Your task to perform on an android device: Open wifi settings Image 0: 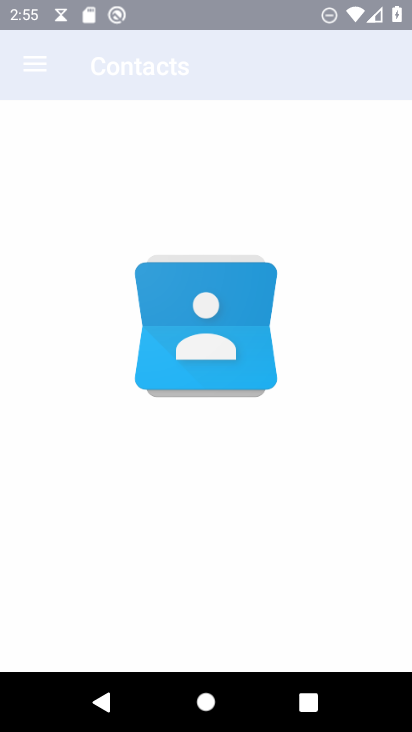
Step 0: drag from (341, 556) to (168, 23)
Your task to perform on an android device: Open wifi settings Image 1: 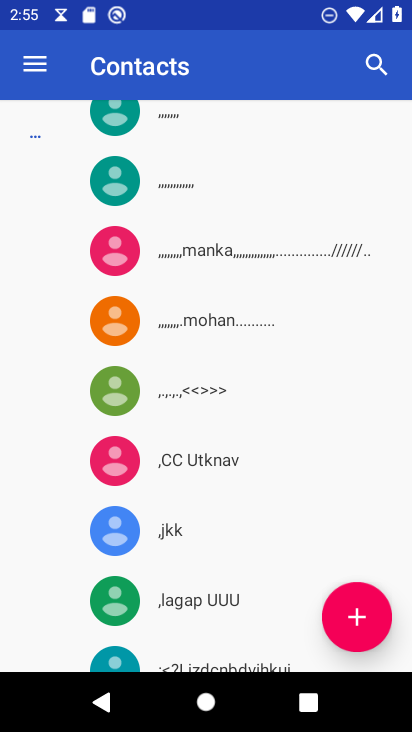
Step 1: press home button
Your task to perform on an android device: Open wifi settings Image 2: 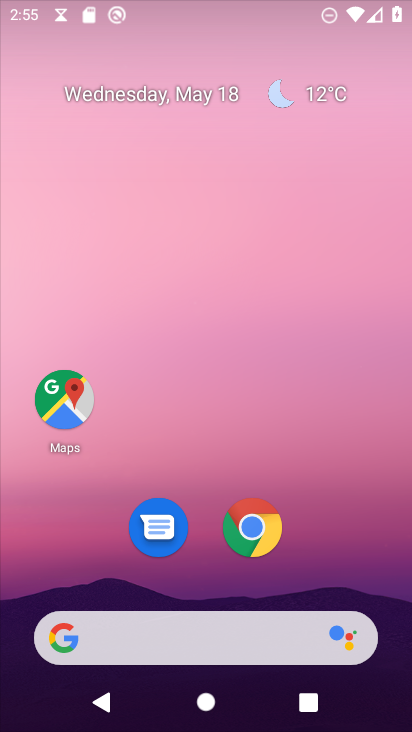
Step 2: drag from (363, 569) to (249, 40)
Your task to perform on an android device: Open wifi settings Image 3: 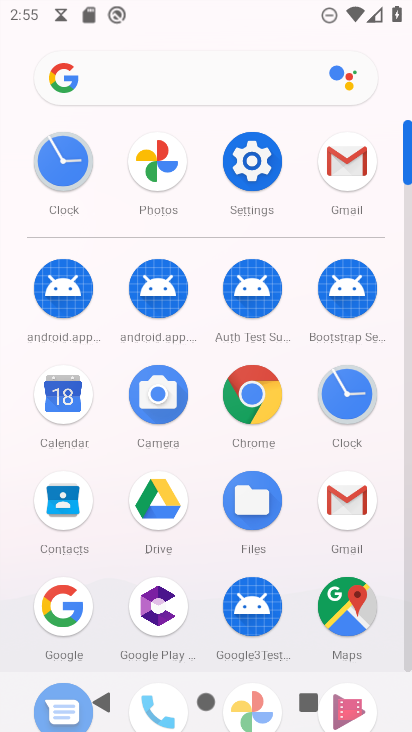
Step 3: click (244, 137)
Your task to perform on an android device: Open wifi settings Image 4: 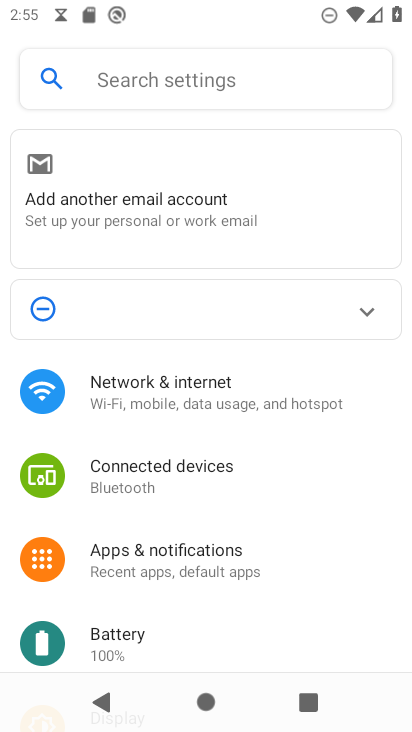
Step 4: click (240, 392)
Your task to perform on an android device: Open wifi settings Image 5: 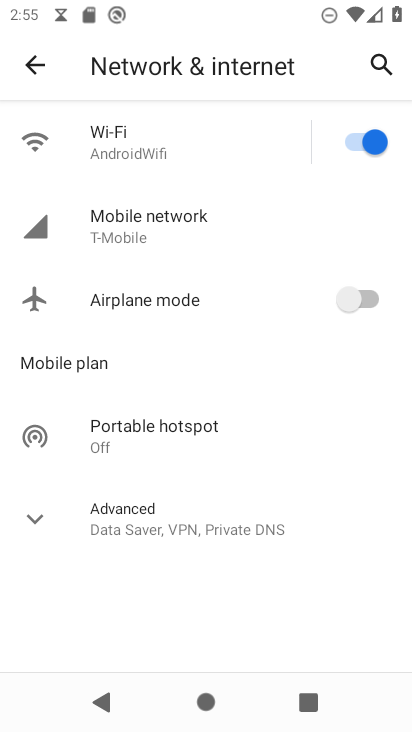
Step 5: click (180, 146)
Your task to perform on an android device: Open wifi settings Image 6: 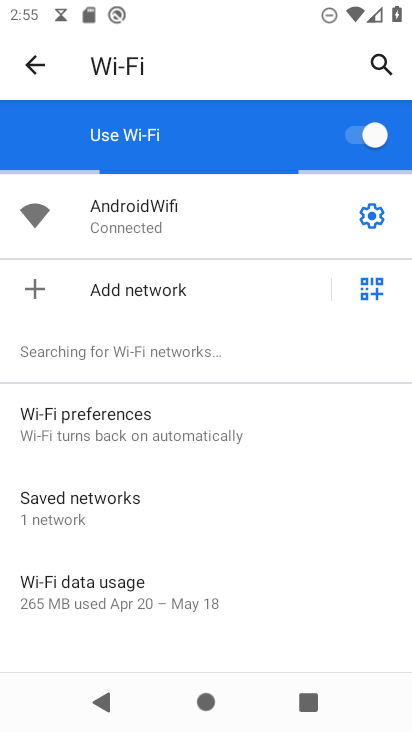
Step 6: task complete